Your task to perform on an android device: change text size in settings app Image 0: 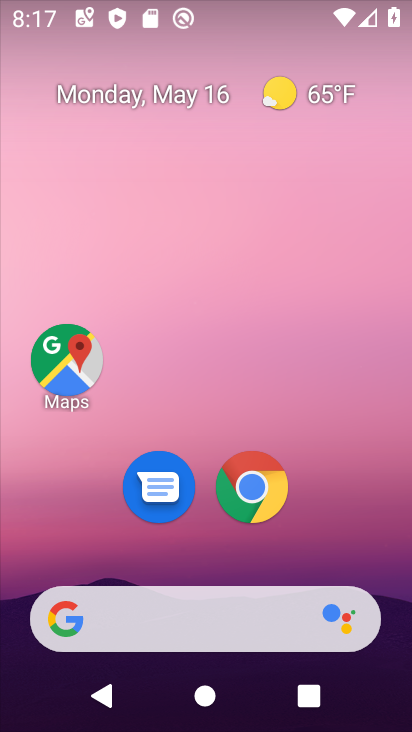
Step 0: drag from (346, 546) to (348, 240)
Your task to perform on an android device: change text size in settings app Image 1: 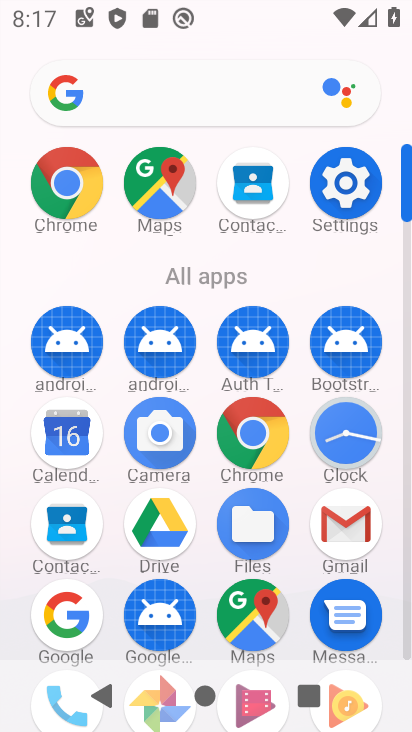
Step 1: click (363, 207)
Your task to perform on an android device: change text size in settings app Image 2: 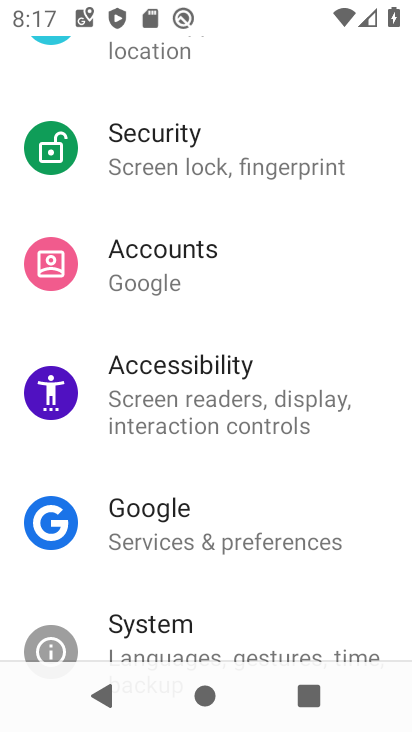
Step 2: drag from (349, 266) to (358, 375)
Your task to perform on an android device: change text size in settings app Image 3: 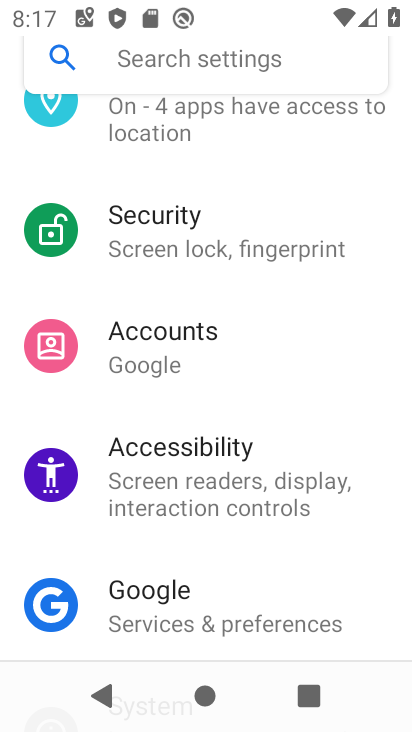
Step 3: drag from (349, 267) to (355, 374)
Your task to perform on an android device: change text size in settings app Image 4: 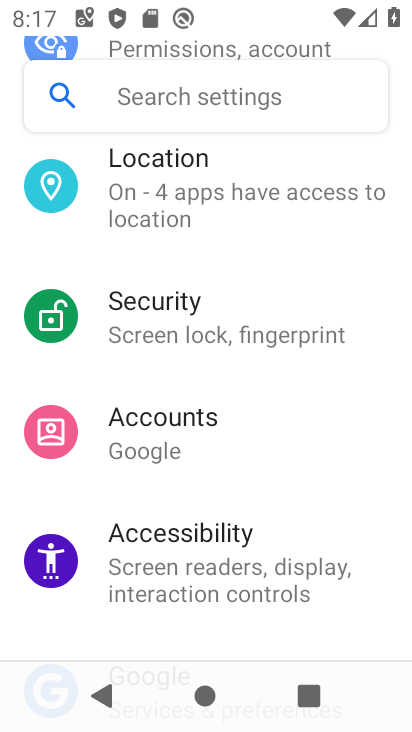
Step 4: drag from (370, 246) to (362, 403)
Your task to perform on an android device: change text size in settings app Image 5: 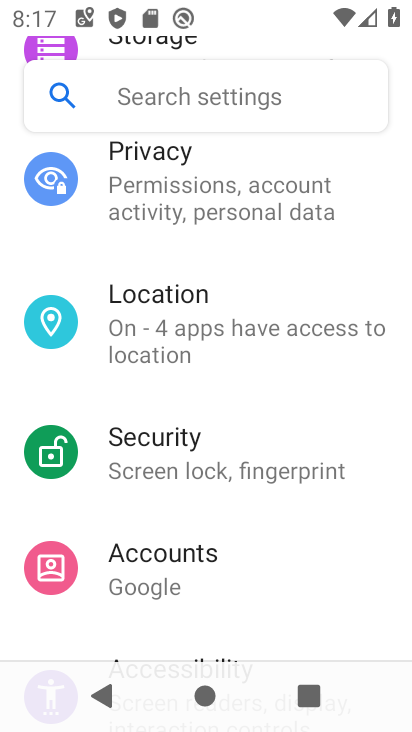
Step 5: drag from (362, 372) to (365, 470)
Your task to perform on an android device: change text size in settings app Image 6: 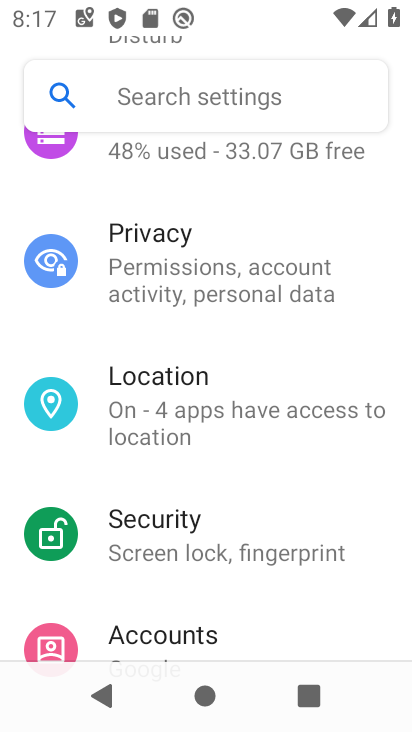
Step 6: drag from (363, 252) to (367, 369)
Your task to perform on an android device: change text size in settings app Image 7: 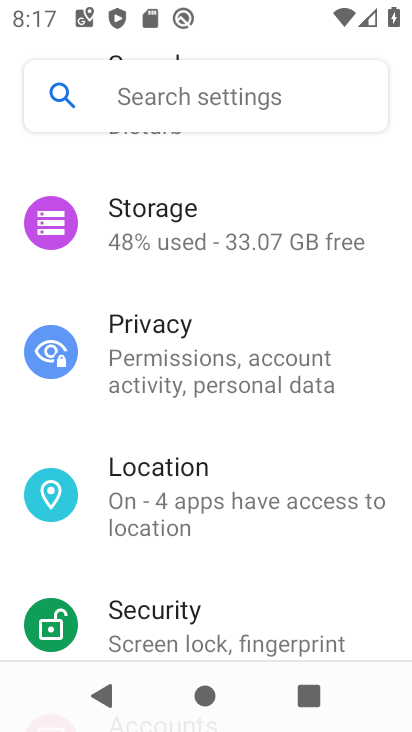
Step 7: drag from (361, 275) to (366, 400)
Your task to perform on an android device: change text size in settings app Image 8: 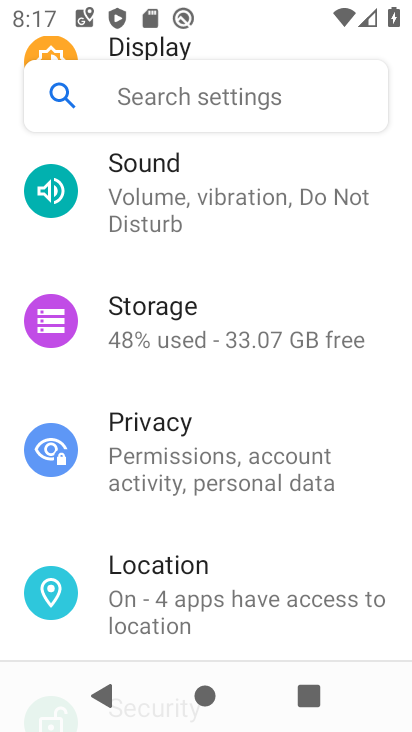
Step 8: drag from (360, 241) to (367, 401)
Your task to perform on an android device: change text size in settings app Image 9: 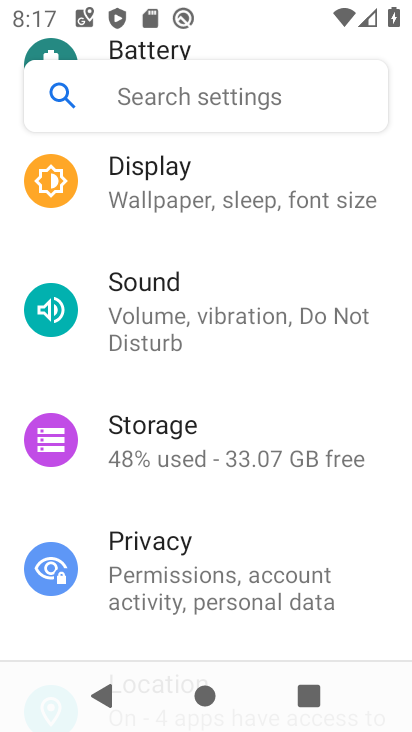
Step 9: drag from (363, 352) to (371, 493)
Your task to perform on an android device: change text size in settings app Image 10: 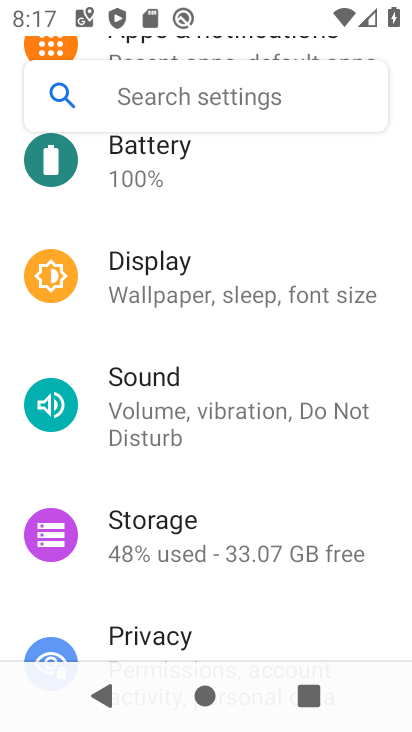
Step 10: drag from (358, 246) to (355, 397)
Your task to perform on an android device: change text size in settings app Image 11: 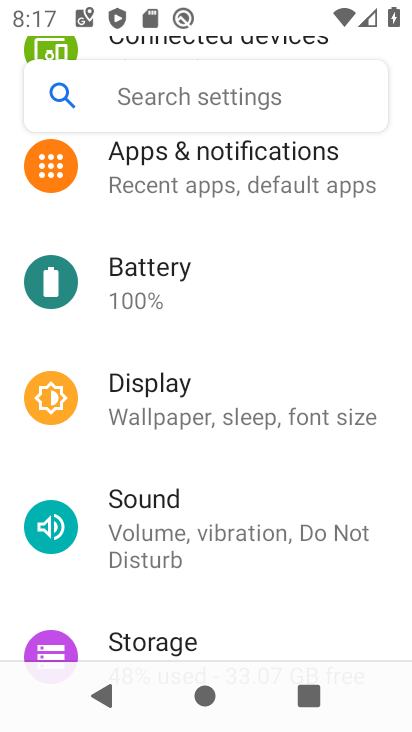
Step 11: drag from (358, 292) to (357, 393)
Your task to perform on an android device: change text size in settings app Image 12: 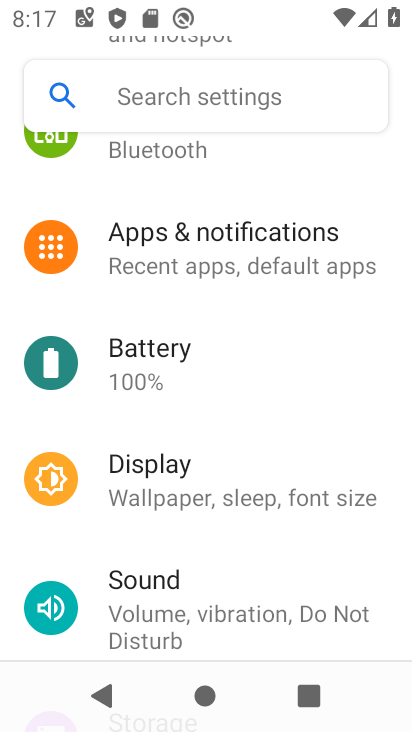
Step 12: drag from (370, 212) to (368, 352)
Your task to perform on an android device: change text size in settings app Image 13: 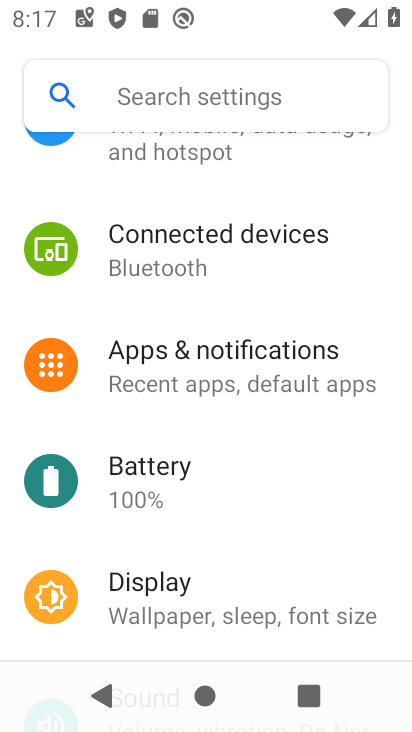
Step 13: drag from (370, 196) to (369, 361)
Your task to perform on an android device: change text size in settings app Image 14: 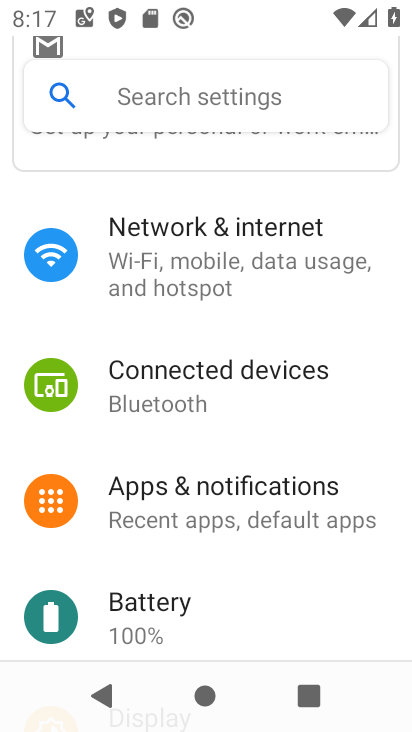
Step 14: drag from (307, 599) to (296, 399)
Your task to perform on an android device: change text size in settings app Image 15: 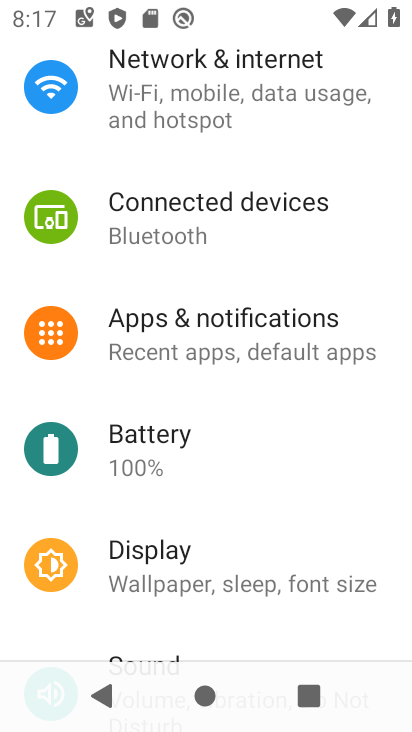
Step 15: drag from (278, 533) to (277, 371)
Your task to perform on an android device: change text size in settings app Image 16: 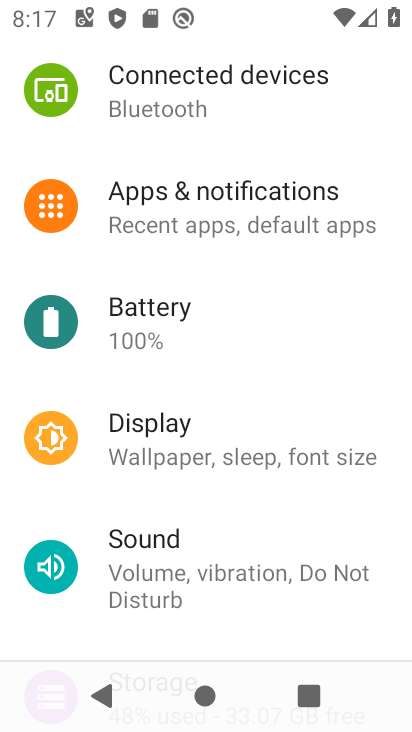
Step 16: click (209, 438)
Your task to perform on an android device: change text size in settings app Image 17: 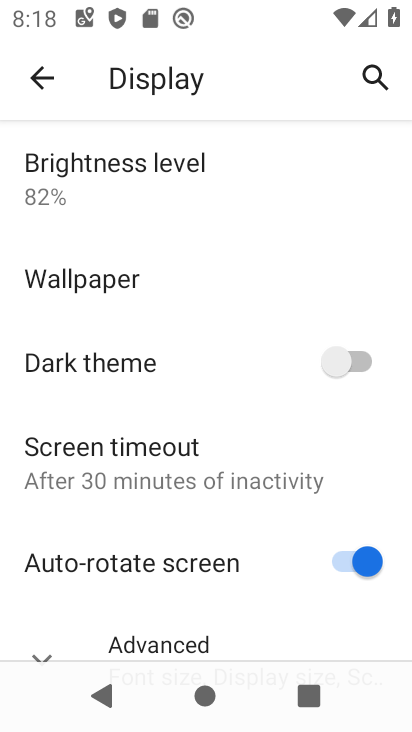
Step 17: drag from (241, 592) to (243, 362)
Your task to perform on an android device: change text size in settings app Image 18: 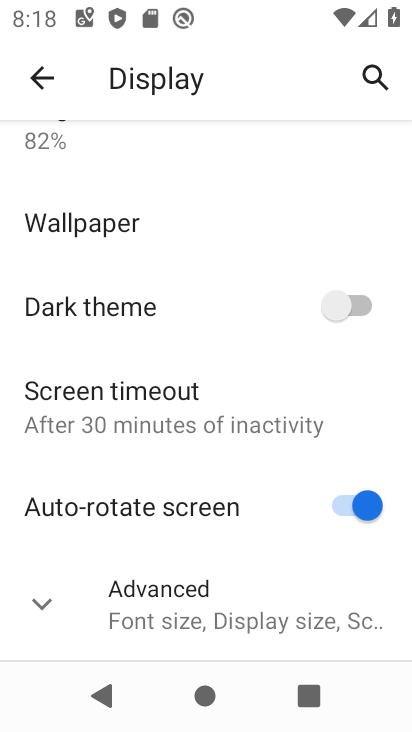
Step 18: click (209, 605)
Your task to perform on an android device: change text size in settings app Image 19: 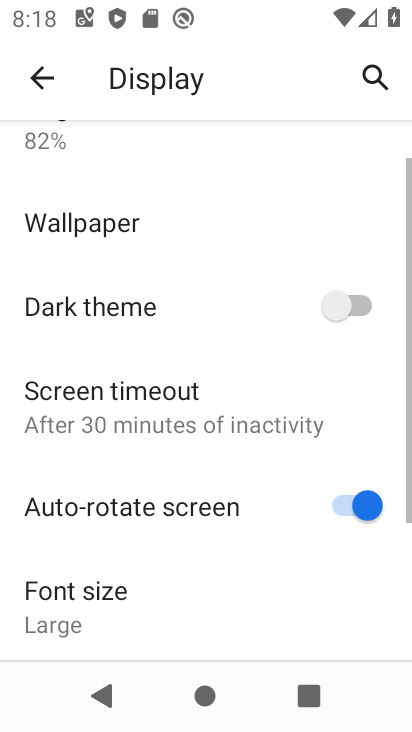
Step 19: drag from (218, 600) to (242, 286)
Your task to perform on an android device: change text size in settings app Image 20: 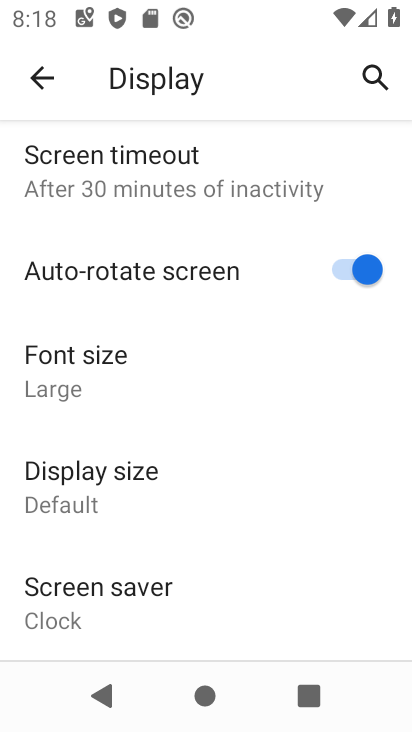
Step 20: click (79, 361)
Your task to perform on an android device: change text size in settings app Image 21: 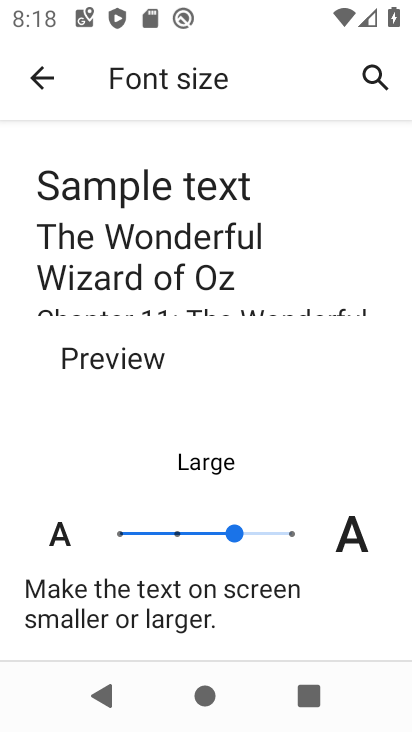
Step 21: click (179, 537)
Your task to perform on an android device: change text size in settings app Image 22: 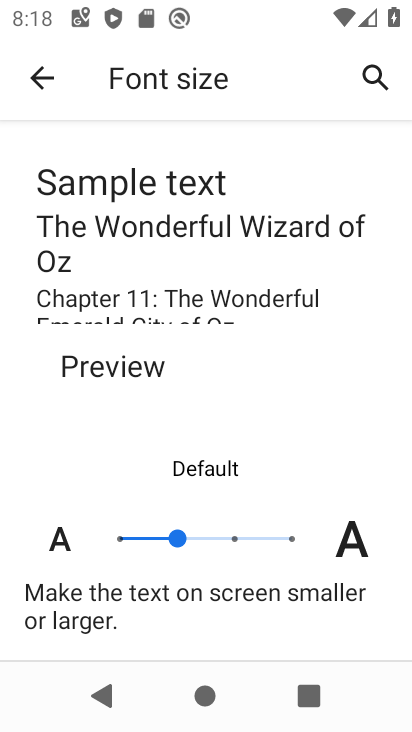
Step 22: task complete